Your task to perform on an android device: delete browsing data in the chrome app Image 0: 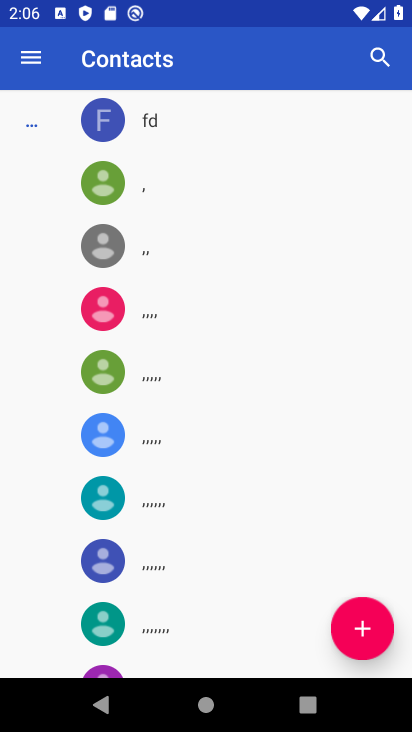
Step 0: press home button
Your task to perform on an android device: delete browsing data in the chrome app Image 1: 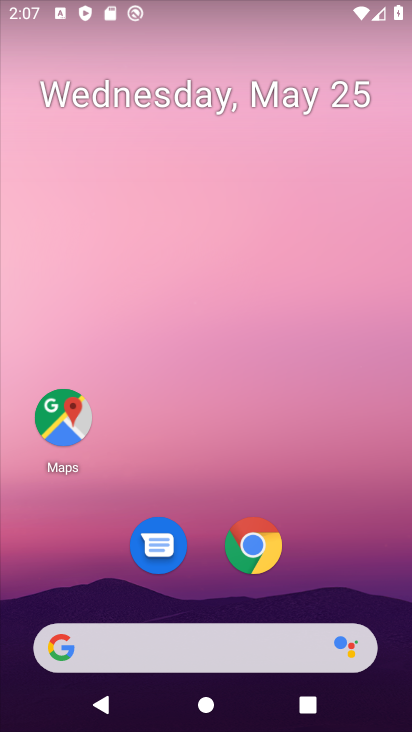
Step 1: click (254, 551)
Your task to perform on an android device: delete browsing data in the chrome app Image 2: 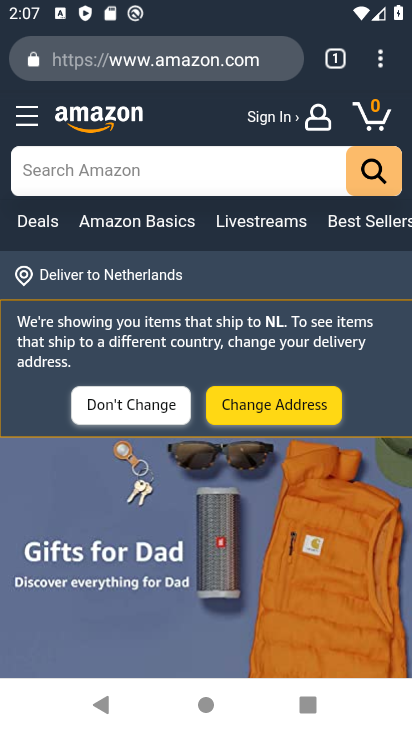
Step 2: click (382, 69)
Your task to perform on an android device: delete browsing data in the chrome app Image 3: 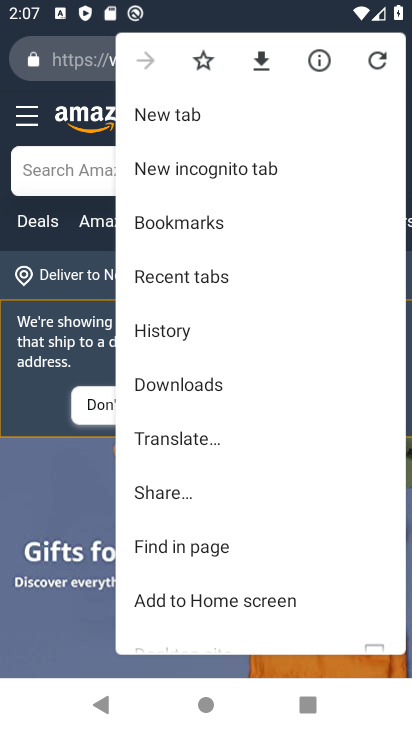
Step 3: click (229, 339)
Your task to perform on an android device: delete browsing data in the chrome app Image 4: 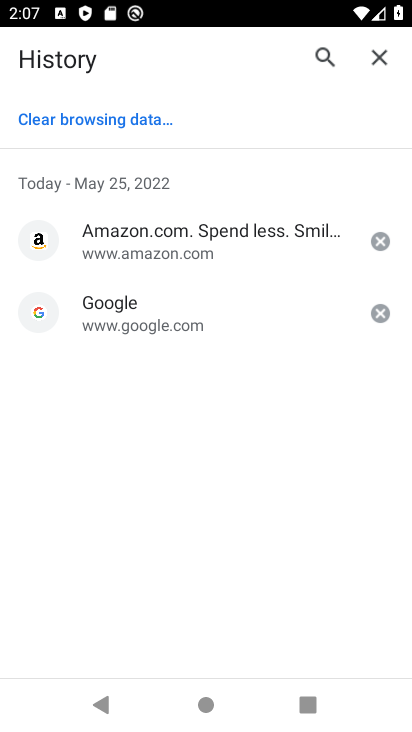
Step 4: click (152, 124)
Your task to perform on an android device: delete browsing data in the chrome app Image 5: 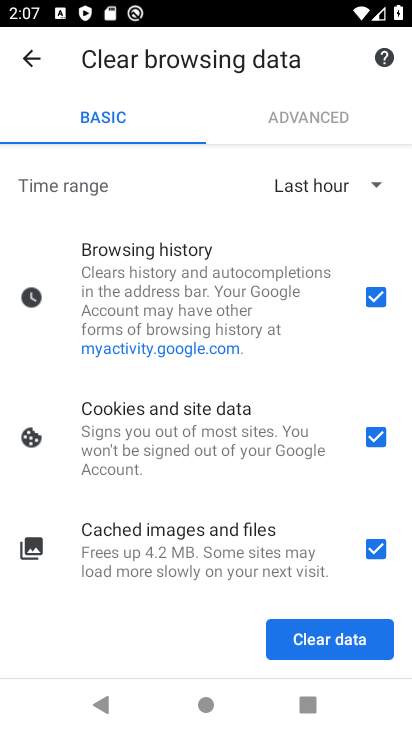
Step 5: click (286, 645)
Your task to perform on an android device: delete browsing data in the chrome app Image 6: 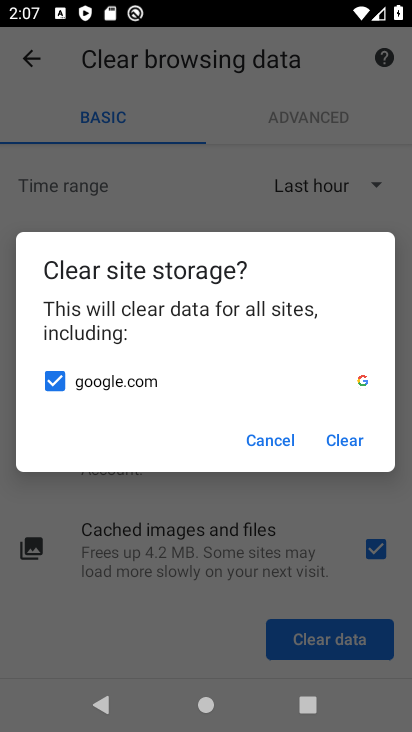
Step 6: click (337, 445)
Your task to perform on an android device: delete browsing data in the chrome app Image 7: 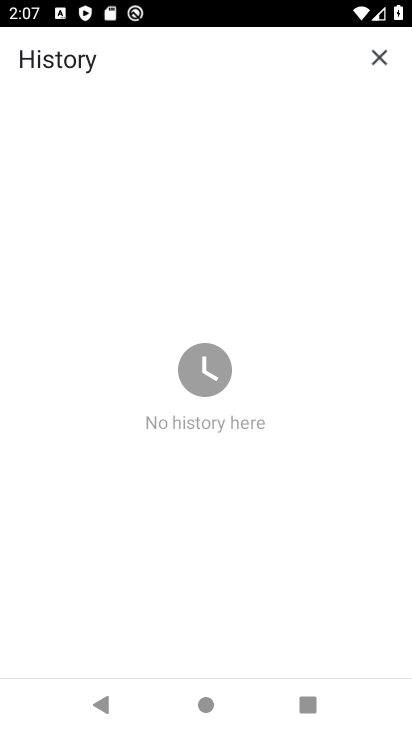
Step 7: task complete